Your task to perform on an android device: Open settings Image 0: 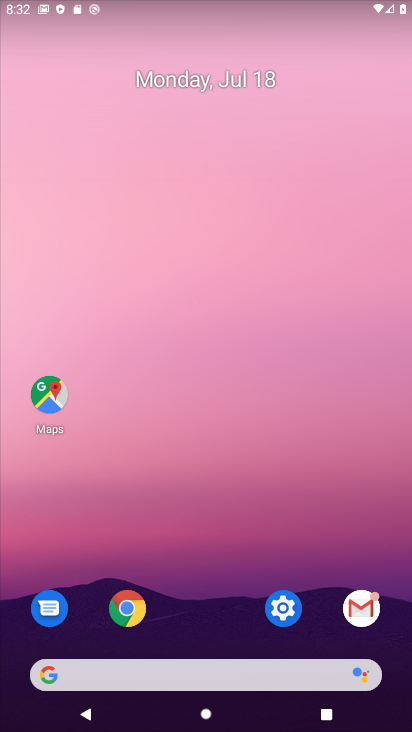
Step 0: press home button
Your task to perform on an android device: Open settings Image 1: 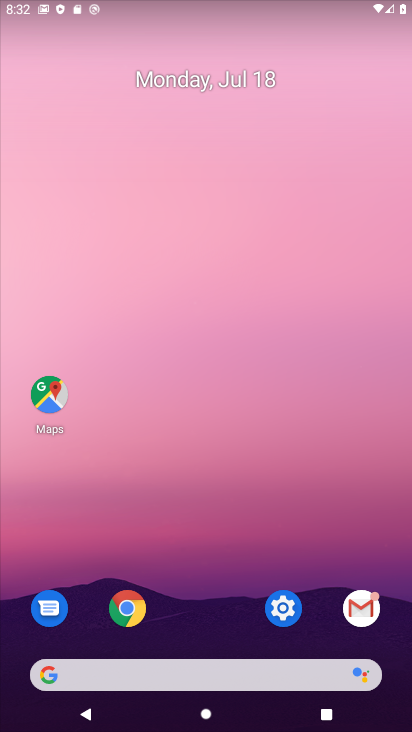
Step 1: click (273, 606)
Your task to perform on an android device: Open settings Image 2: 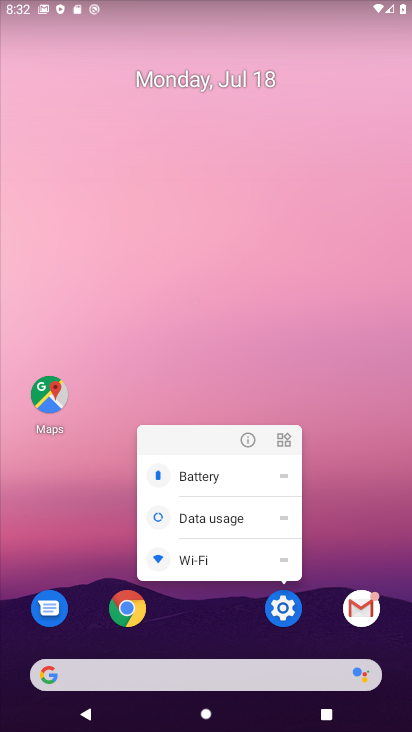
Step 2: click (279, 605)
Your task to perform on an android device: Open settings Image 3: 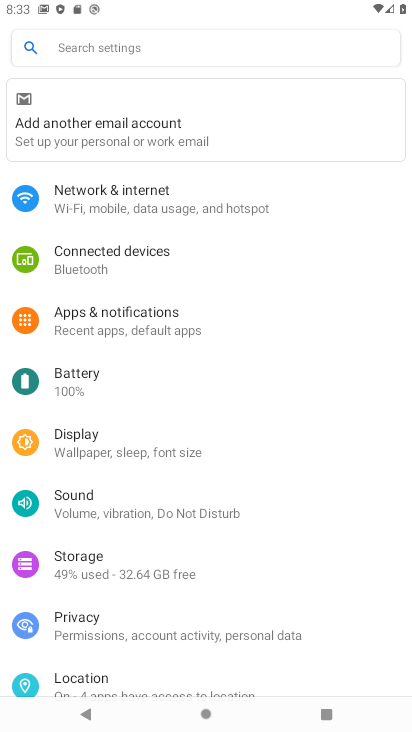
Step 3: task complete